Your task to perform on an android device: When is my next meeting? Image 0: 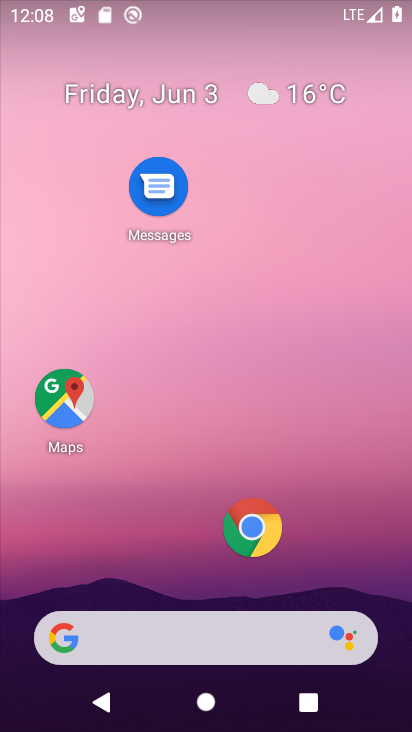
Step 0: drag from (202, 552) to (241, 112)
Your task to perform on an android device: When is my next meeting? Image 1: 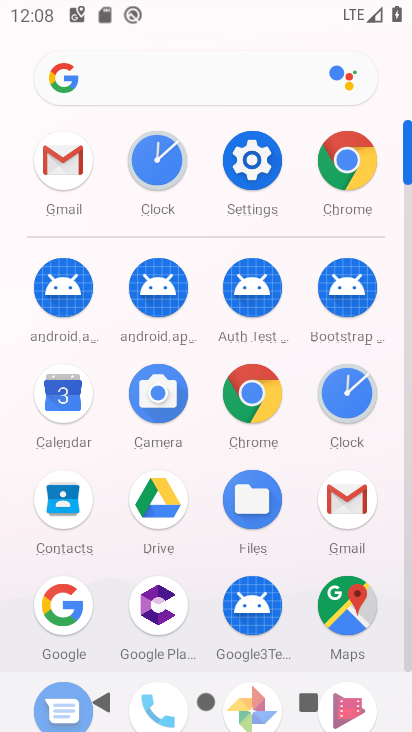
Step 1: click (63, 391)
Your task to perform on an android device: When is my next meeting? Image 2: 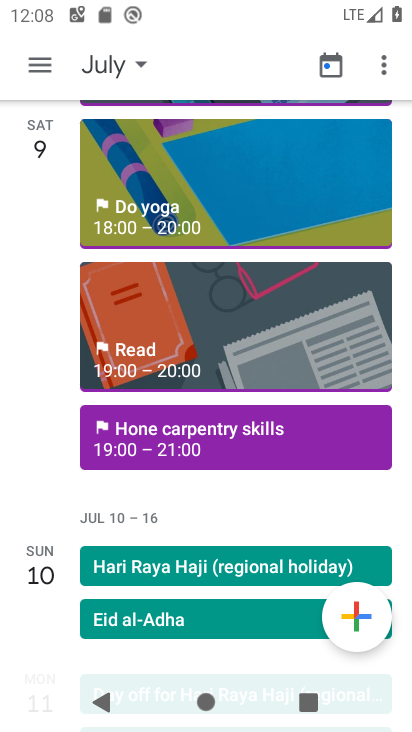
Step 2: click (136, 57)
Your task to perform on an android device: When is my next meeting? Image 3: 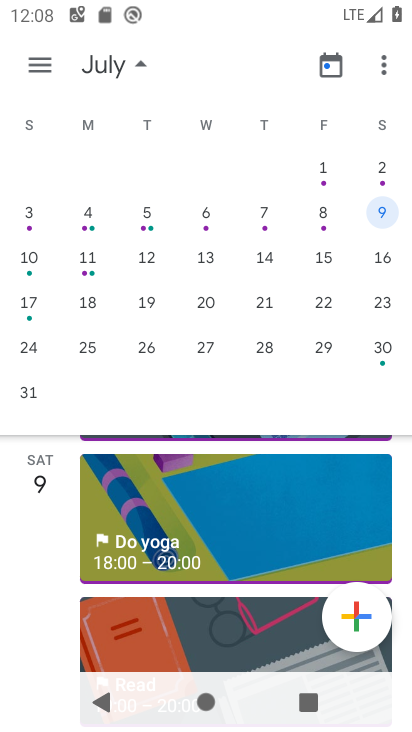
Step 3: drag from (42, 271) to (410, 260)
Your task to perform on an android device: When is my next meeting? Image 4: 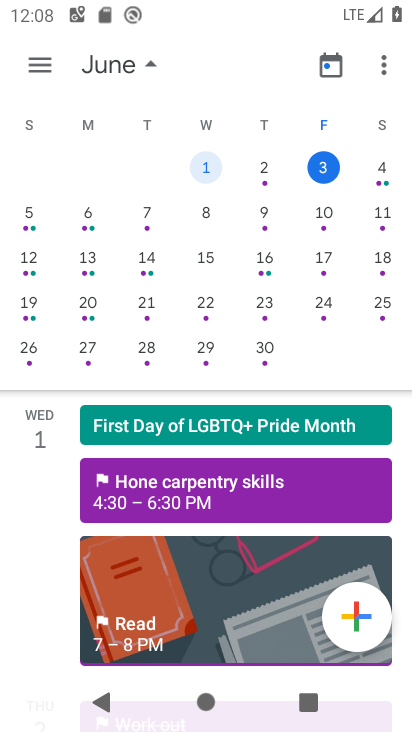
Step 4: click (326, 161)
Your task to perform on an android device: When is my next meeting? Image 5: 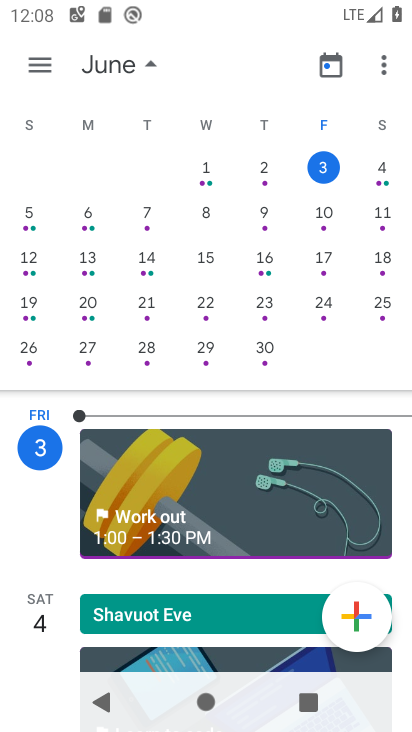
Step 5: click (145, 60)
Your task to perform on an android device: When is my next meeting? Image 6: 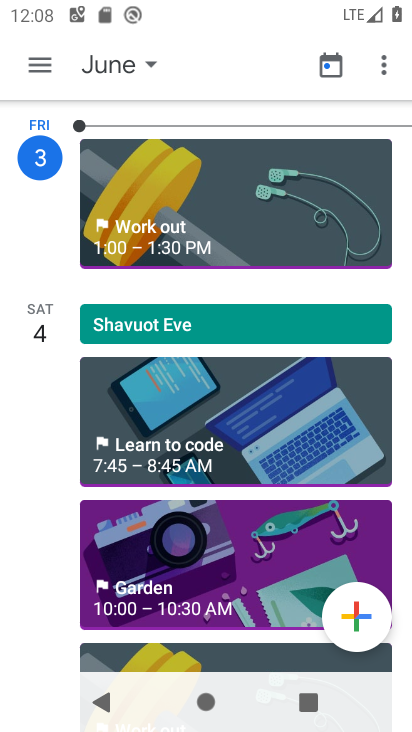
Step 6: drag from (40, 443) to (49, 127)
Your task to perform on an android device: When is my next meeting? Image 7: 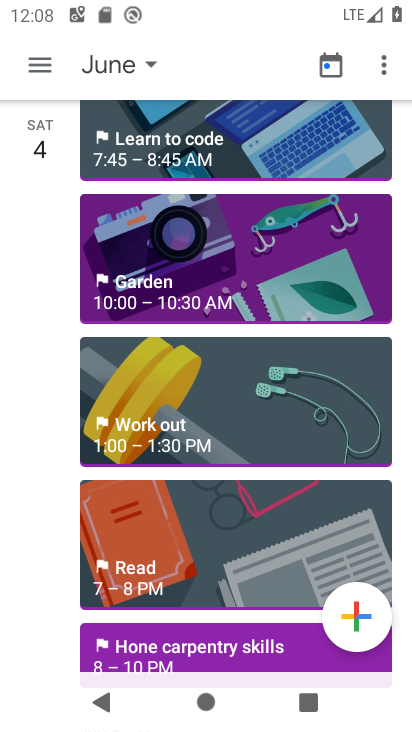
Step 7: click (42, 511)
Your task to perform on an android device: When is my next meeting? Image 8: 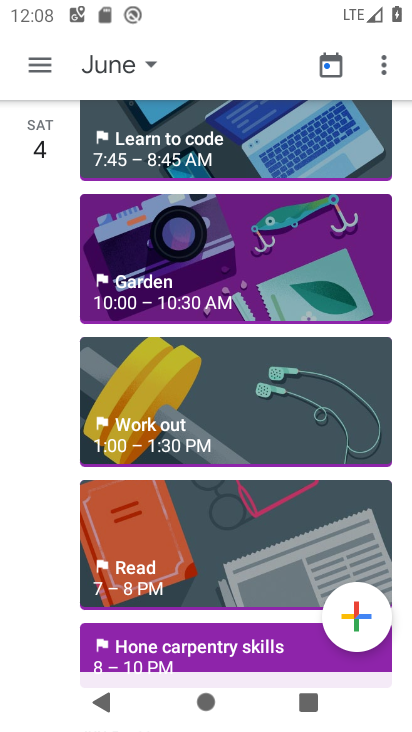
Step 8: task complete